Your task to perform on an android device: Open ESPN.com Image 0: 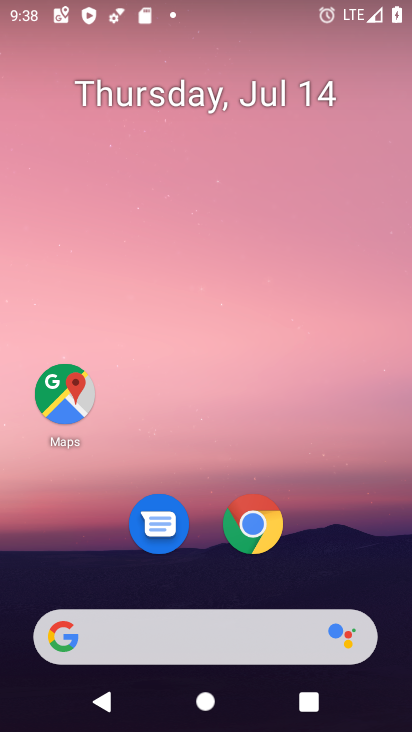
Step 0: click (263, 642)
Your task to perform on an android device: Open ESPN.com Image 1: 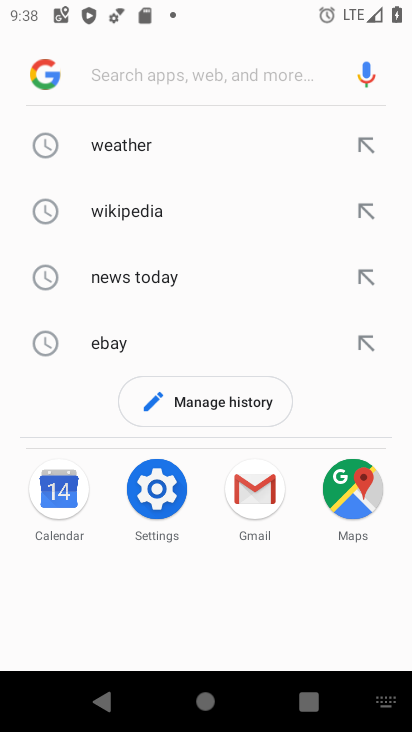
Step 1: type "espn.com"
Your task to perform on an android device: Open ESPN.com Image 2: 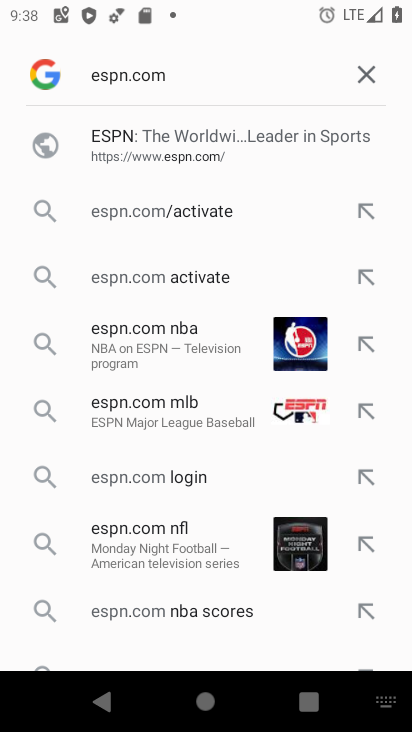
Step 2: click (151, 151)
Your task to perform on an android device: Open ESPN.com Image 3: 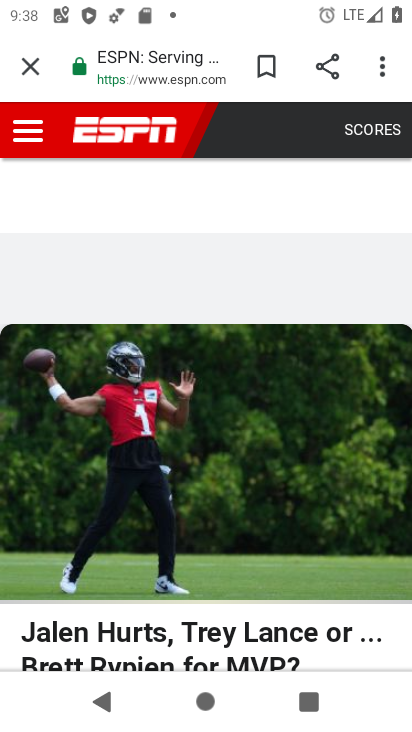
Step 3: task complete